Your task to perform on an android device: turn on improve location accuracy Image 0: 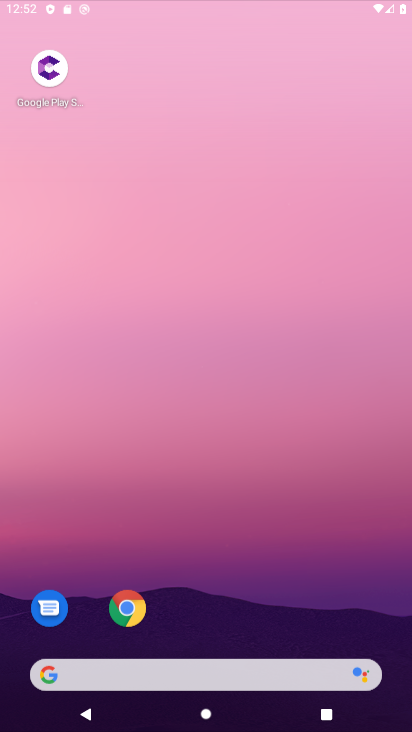
Step 0: click (131, 609)
Your task to perform on an android device: turn on improve location accuracy Image 1: 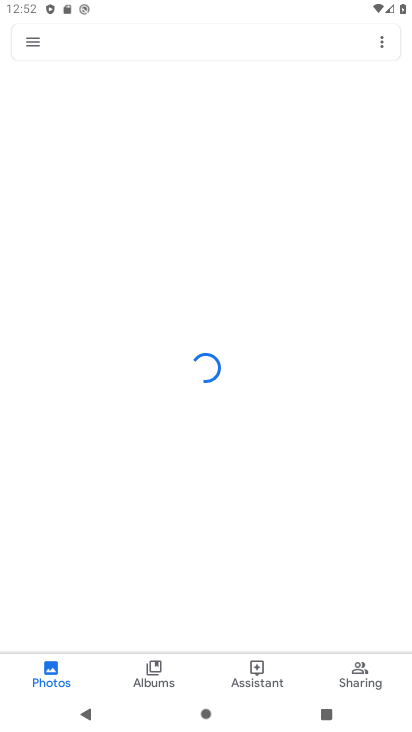
Step 1: press back button
Your task to perform on an android device: turn on improve location accuracy Image 2: 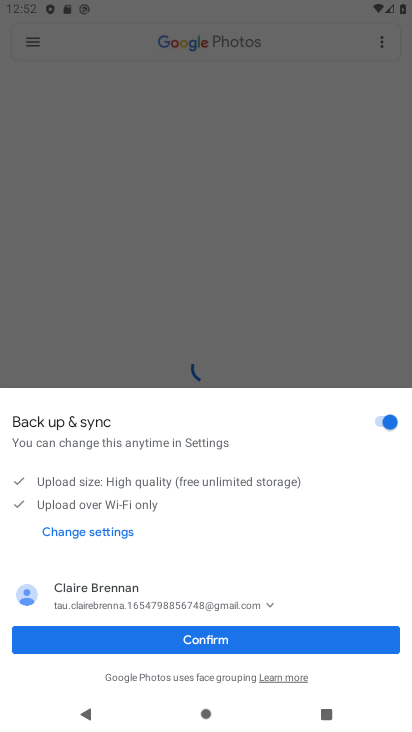
Step 2: press back button
Your task to perform on an android device: turn on improve location accuracy Image 3: 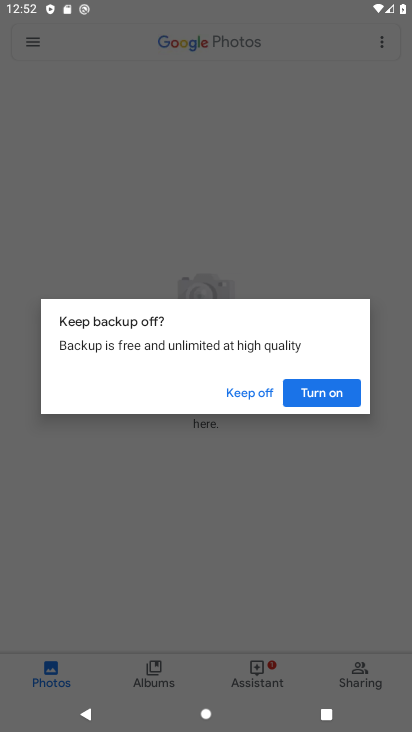
Step 3: press home button
Your task to perform on an android device: turn on improve location accuracy Image 4: 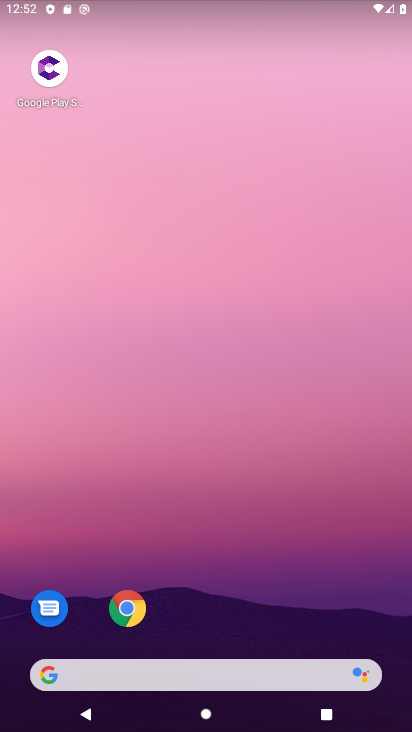
Step 4: drag from (198, 564) to (378, 66)
Your task to perform on an android device: turn on improve location accuracy Image 5: 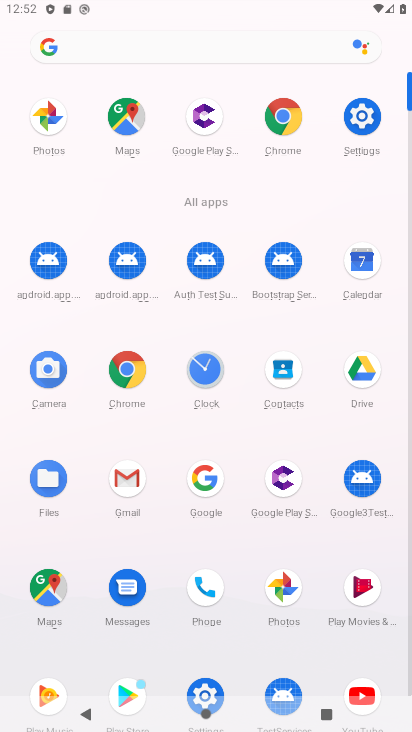
Step 5: click (355, 117)
Your task to perform on an android device: turn on improve location accuracy Image 6: 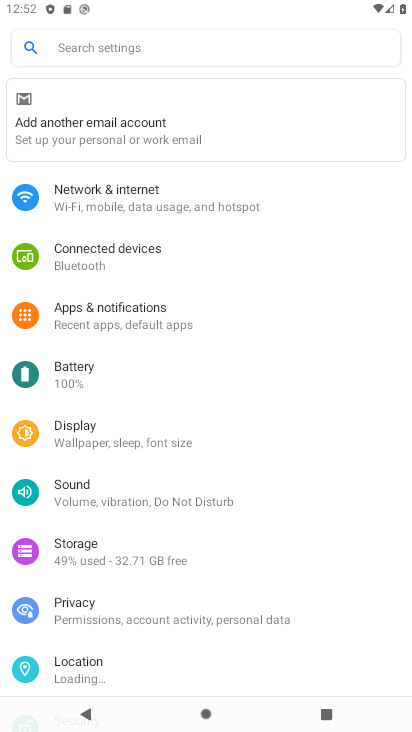
Step 6: click (122, 673)
Your task to perform on an android device: turn on improve location accuracy Image 7: 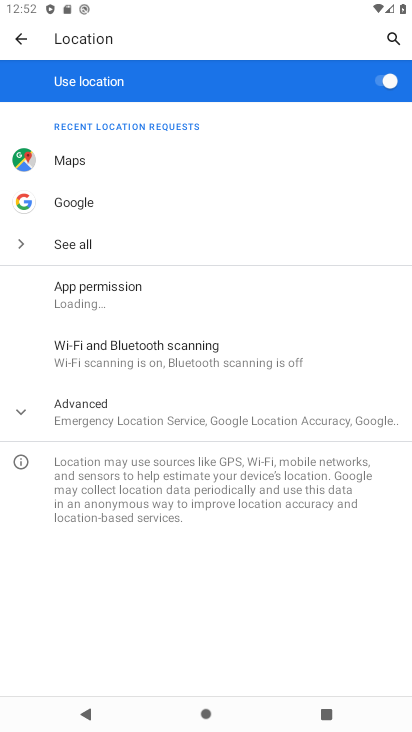
Step 7: click (148, 415)
Your task to perform on an android device: turn on improve location accuracy Image 8: 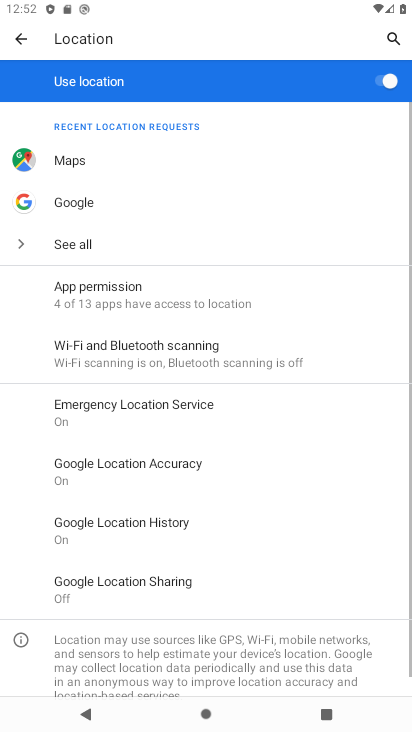
Step 8: click (140, 473)
Your task to perform on an android device: turn on improve location accuracy Image 9: 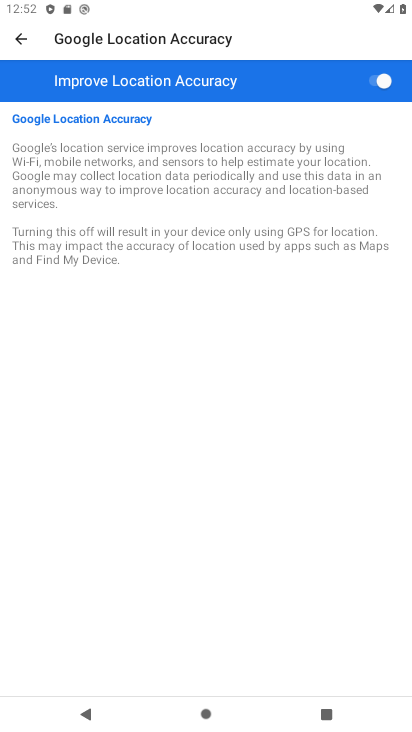
Step 9: task complete